Your task to perform on an android device: open app "Instagram" (install if not already installed) and go to login screen Image 0: 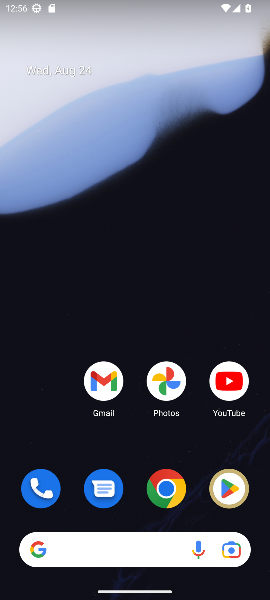
Step 0: press home button
Your task to perform on an android device: open app "Instagram" (install if not already installed) and go to login screen Image 1: 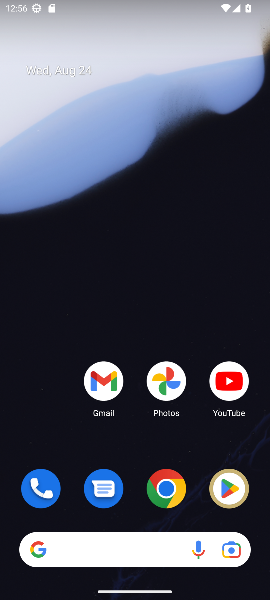
Step 1: click (225, 492)
Your task to perform on an android device: open app "Instagram" (install if not already installed) and go to login screen Image 2: 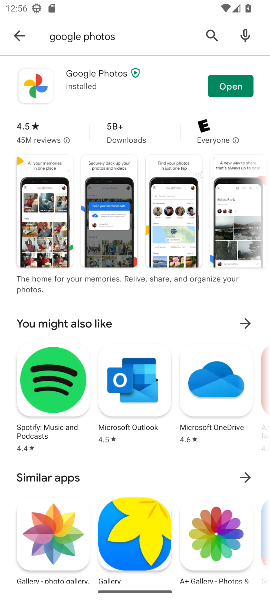
Step 2: click (19, 36)
Your task to perform on an android device: open app "Instagram" (install if not already installed) and go to login screen Image 3: 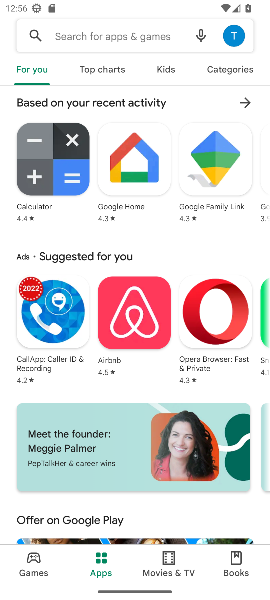
Step 3: click (145, 32)
Your task to perform on an android device: open app "Instagram" (install if not already installed) and go to login screen Image 4: 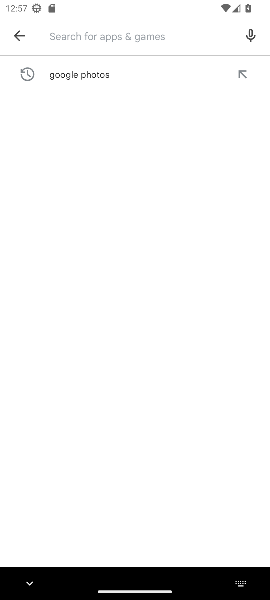
Step 4: type "Instagram"
Your task to perform on an android device: open app "Instagram" (install if not already installed) and go to login screen Image 5: 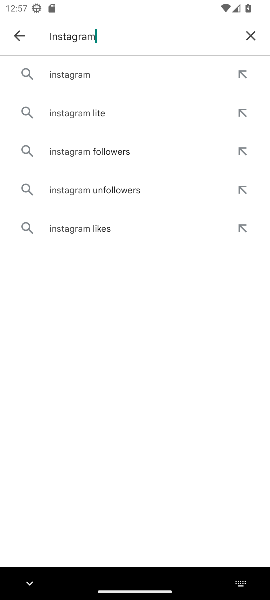
Step 5: click (61, 74)
Your task to perform on an android device: open app "Instagram" (install if not already installed) and go to login screen Image 6: 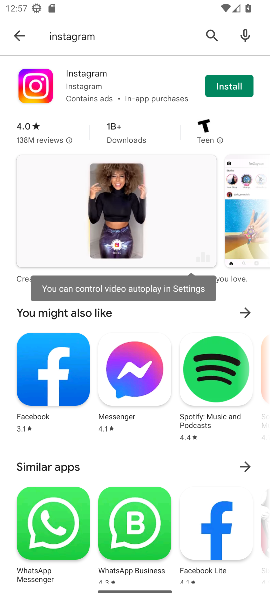
Step 6: click (232, 83)
Your task to perform on an android device: open app "Instagram" (install if not already installed) and go to login screen Image 7: 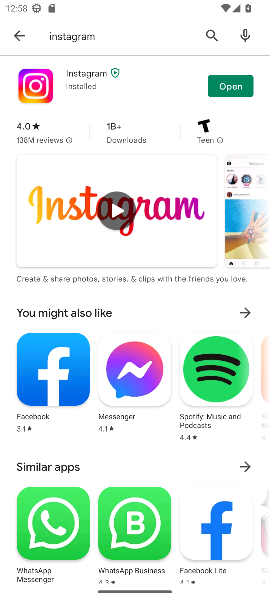
Step 7: click (232, 89)
Your task to perform on an android device: open app "Instagram" (install if not already installed) and go to login screen Image 8: 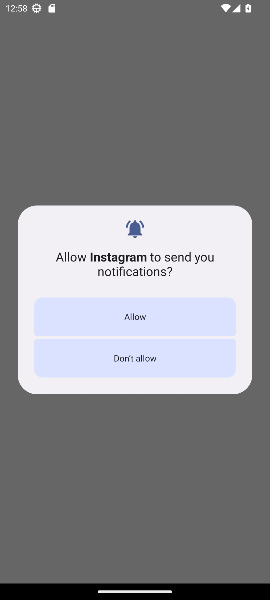
Step 8: click (138, 313)
Your task to perform on an android device: open app "Instagram" (install if not already installed) and go to login screen Image 9: 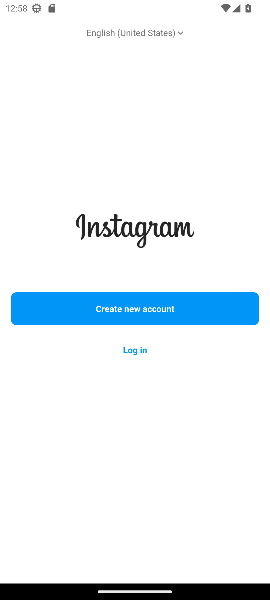
Step 9: click (138, 347)
Your task to perform on an android device: open app "Instagram" (install if not already installed) and go to login screen Image 10: 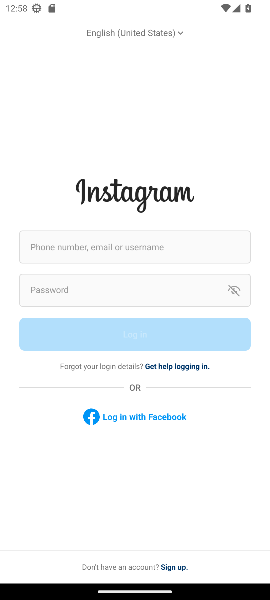
Step 10: task complete